Your task to perform on an android device: turn on translation in the chrome app Image 0: 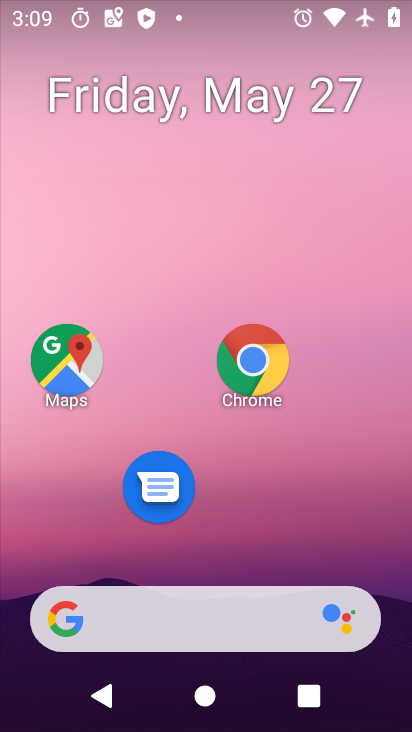
Step 0: click (258, 356)
Your task to perform on an android device: turn on translation in the chrome app Image 1: 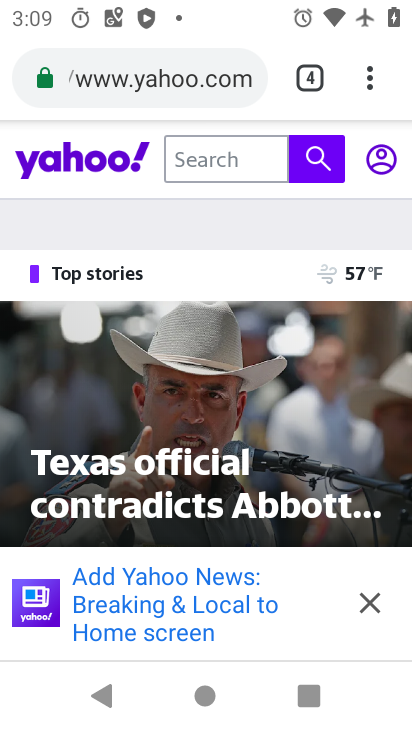
Step 1: click (368, 74)
Your task to perform on an android device: turn on translation in the chrome app Image 2: 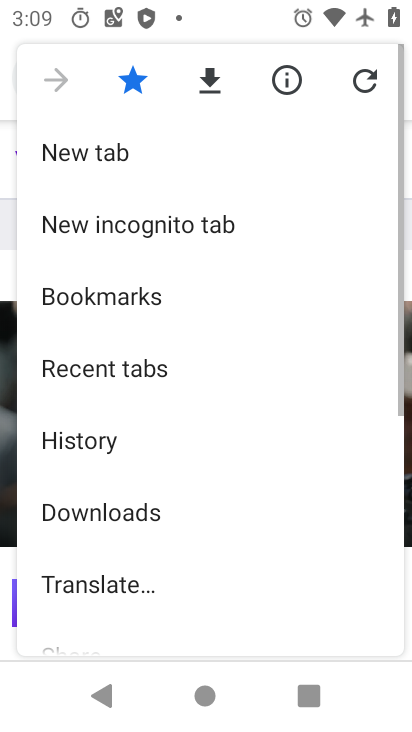
Step 2: drag from (239, 509) to (268, 97)
Your task to perform on an android device: turn on translation in the chrome app Image 3: 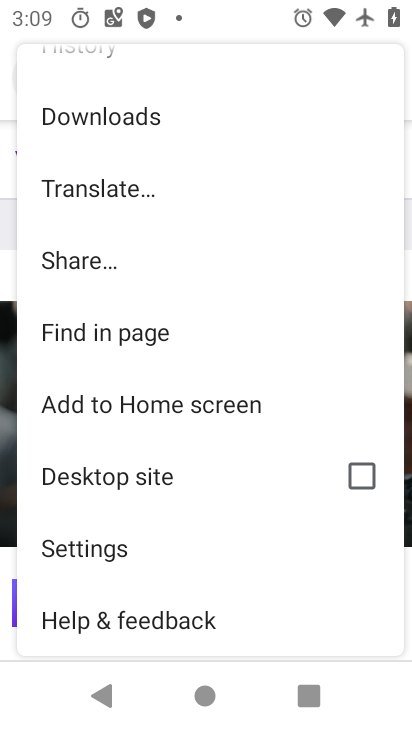
Step 3: click (136, 544)
Your task to perform on an android device: turn on translation in the chrome app Image 4: 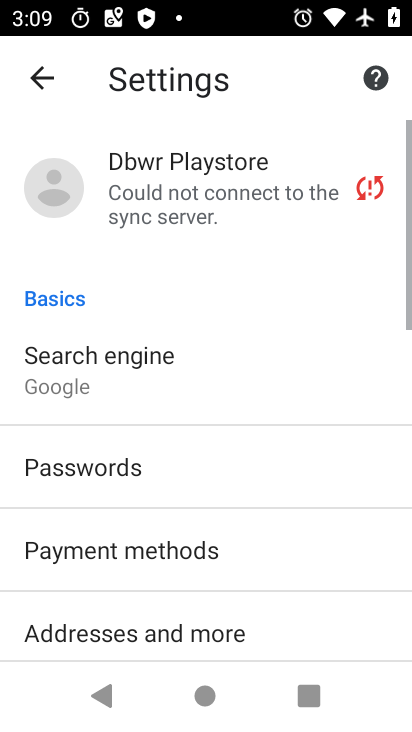
Step 4: drag from (266, 557) to (293, 68)
Your task to perform on an android device: turn on translation in the chrome app Image 5: 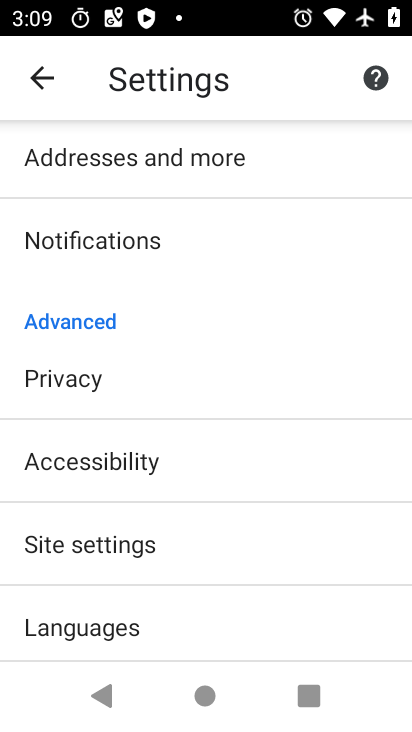
Step 5: click (102, 628)
Your task to perform on an android device: turn on translation in the chrome app Image 6: 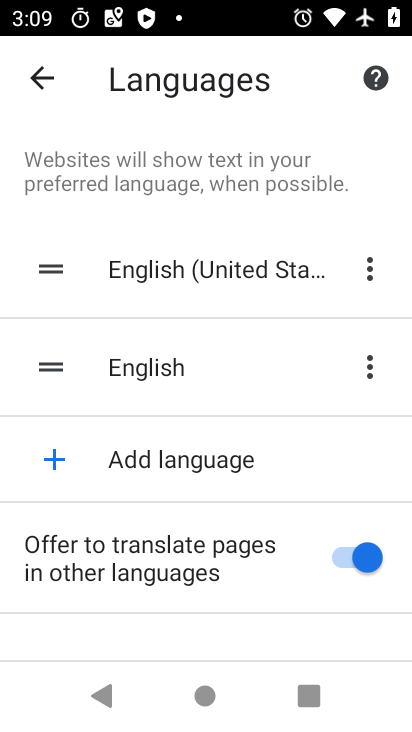
Step 6: task complete